Your task to perform on an android device: Toggle the flashlight Image 0: 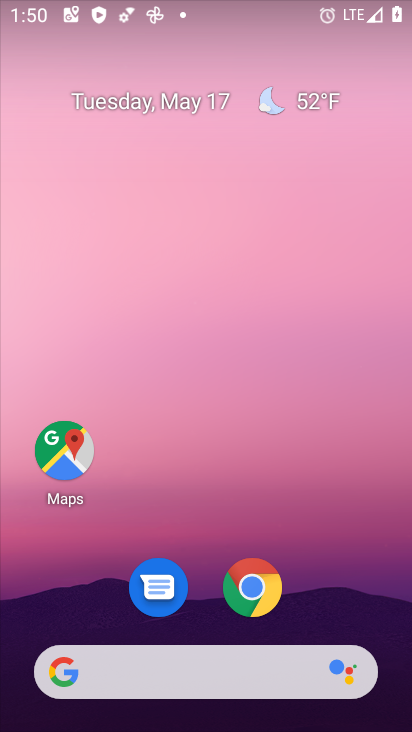
Step 0: drag from (342, 620) to (330, 264)
Your task to perform on an android device: Toggle the flashlight Image 1: 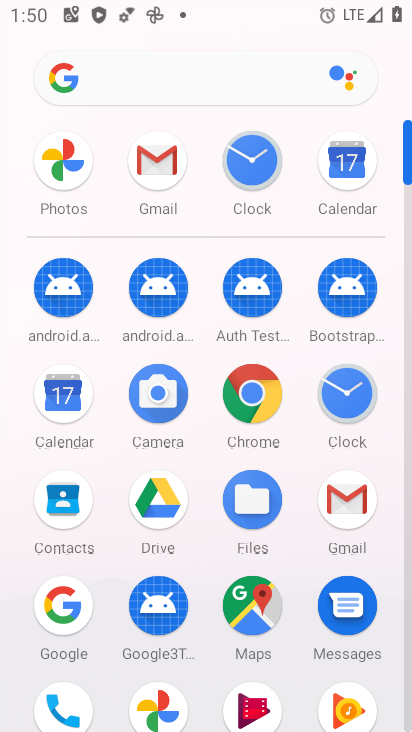
Step 1: click (406, 706)
Your task to perform on an android device: Toggle the flashlight Image 2: 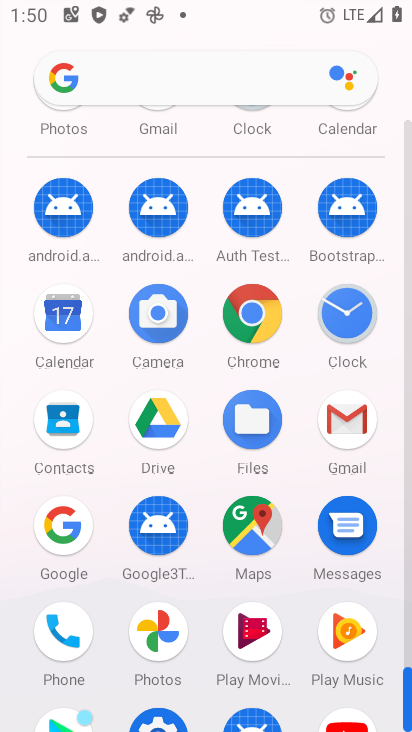
Step 2: click (163, 716)
Your task to perform on an android device: Toggle the flashlight Image 3: 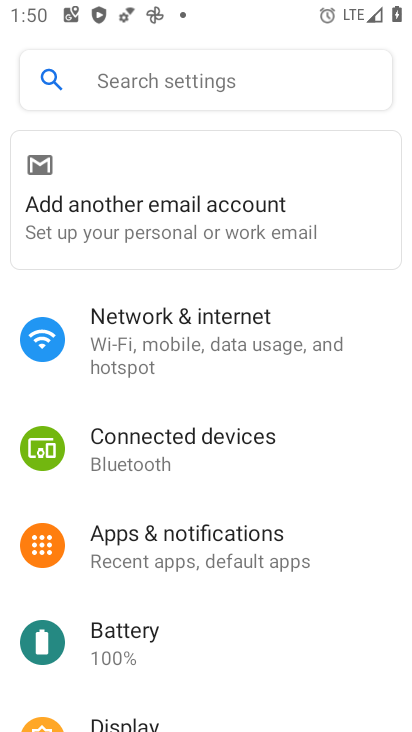
Step 3: click (225, 461)
Your task to perform on an android device: Toggle the flashlight Image 4: 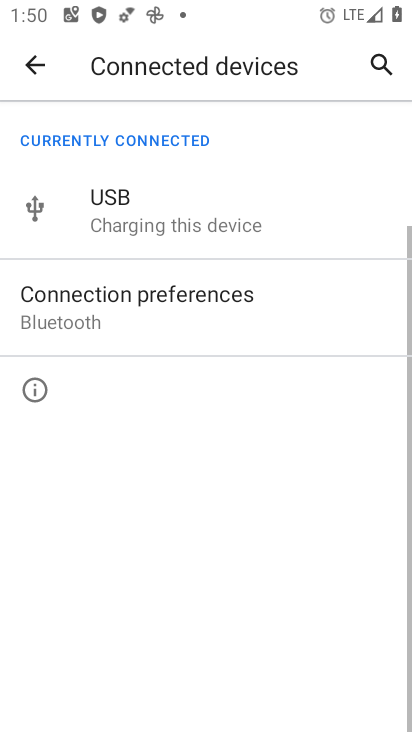
Step 4: task complete